Your task to perform on an android device: check data usage Image 0: 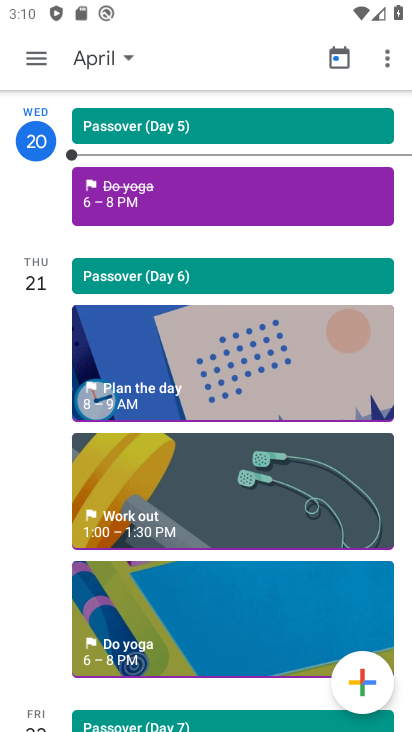
Step 0: press home button
Your task to perform on an android device: check data usage Image 1: 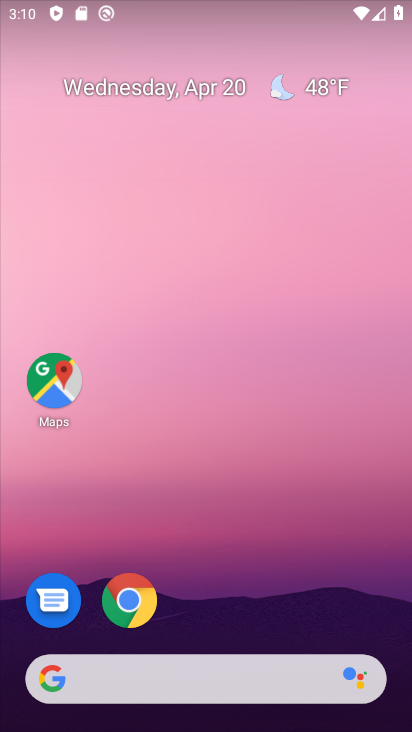
Step 1: drag from (376, 175) to (383, 104)
Your task to perform on an android device: check data usage Image 2: 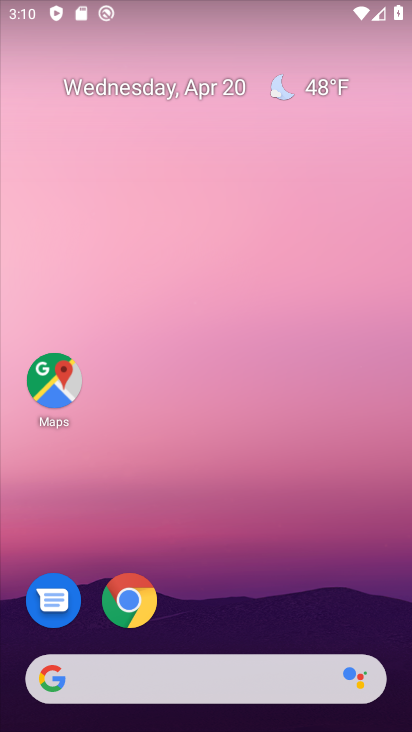
Step 2: drag from (294, 518) to (336, 54)
Your task to perform on an android device: check data usage Image 3: 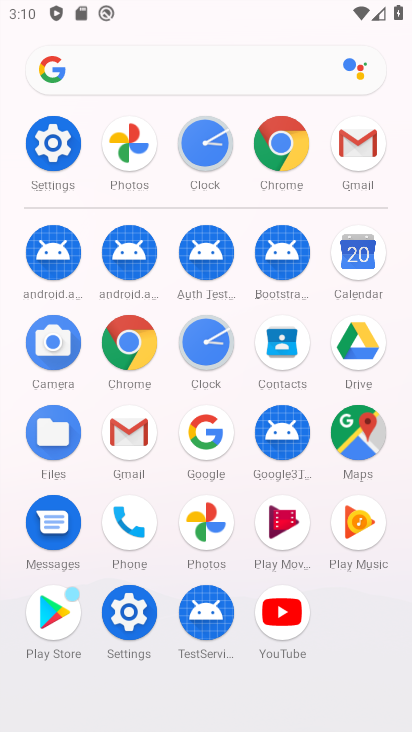
Step 3: click (63, 136)
Your task to perform on an android device: check data usage Image 4: 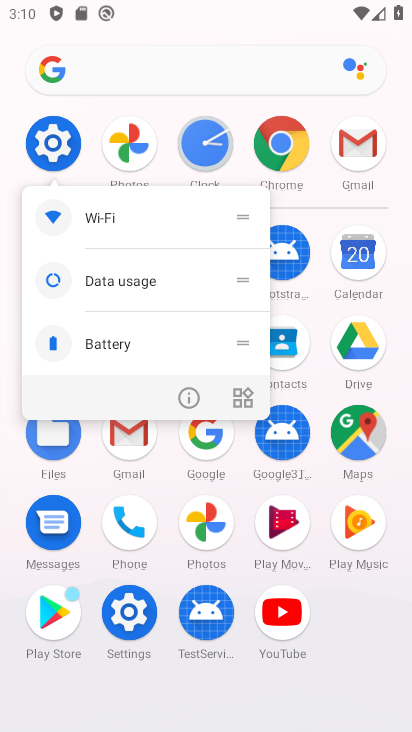
Step 4: click (61, 136)
Your task to perform on an android device: check data usage Image 5: 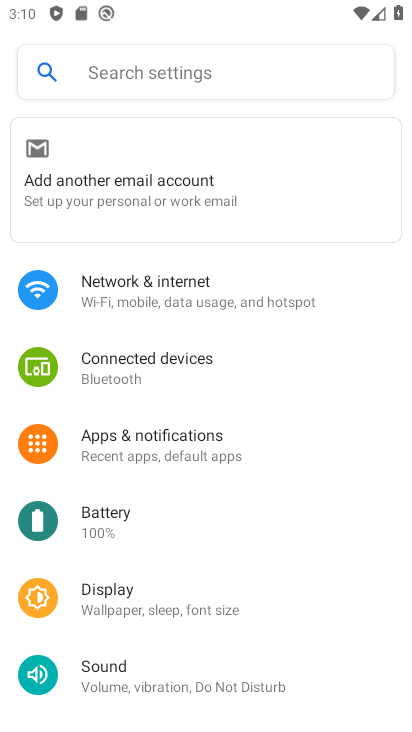
Step 5: click (145, 304)
Your task to perform on an android device: check data usage Image 6: 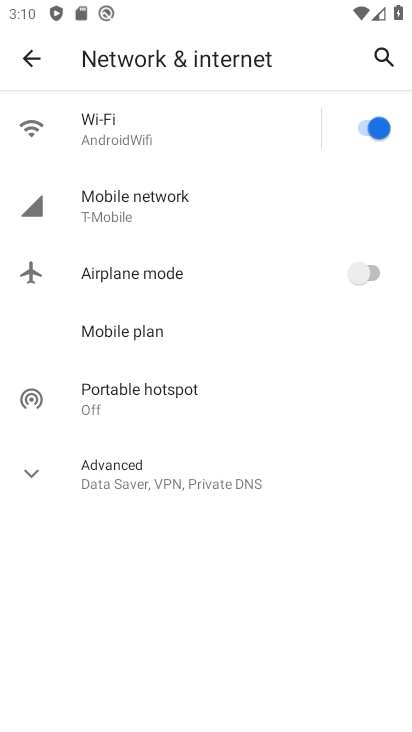
Step 6: click (121, 215)
Your task to perform on an android device: check data usage Image 7: 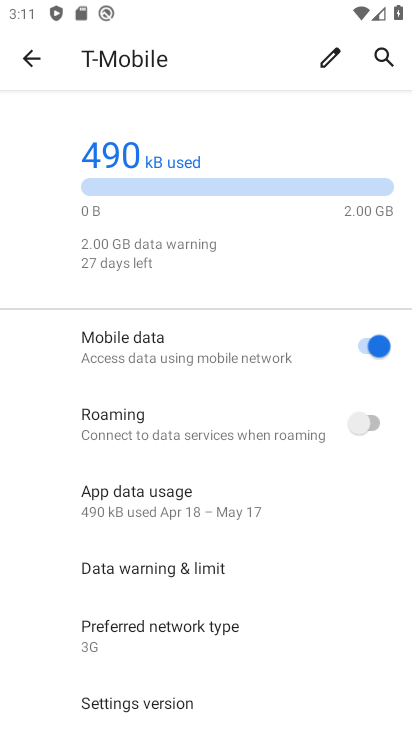
Step 7: task complete